Your task to perform on an android device: stop showing notifications on the lock screen Image 0: 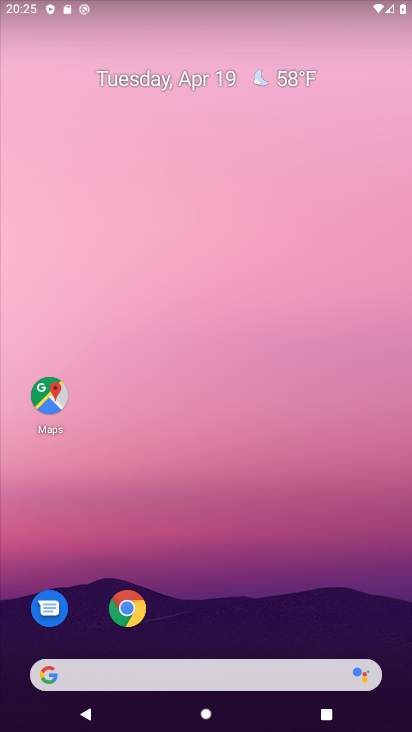
Step 0: drag from (214, 616) to (253, 75)
Your task to perform on an android device: stop showing notifications on the lock screen Image 1: 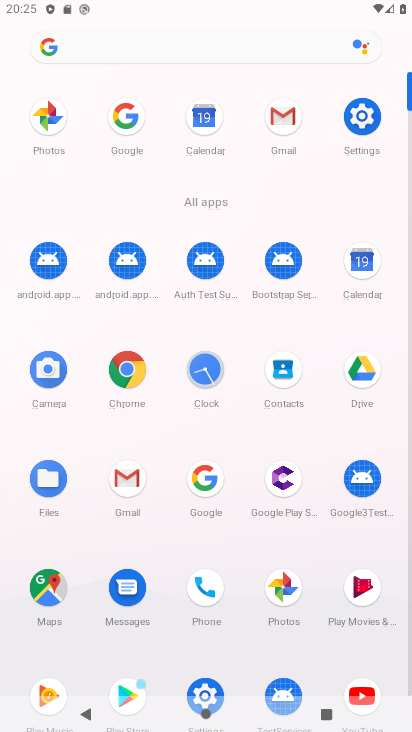
Step 1: click (363, 120)
Your task to perform on an android device: stop showing notifications on the lock screen Image 2: 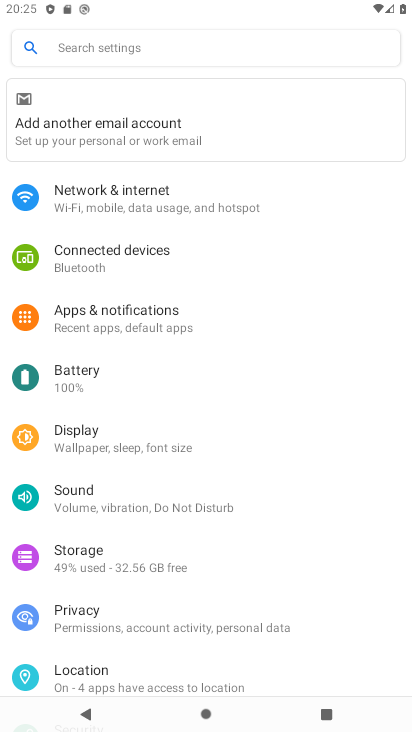
Step 2: click (133, 312)
Your task to perform on an android device: stop showing notifications on the lock screen Image 3: 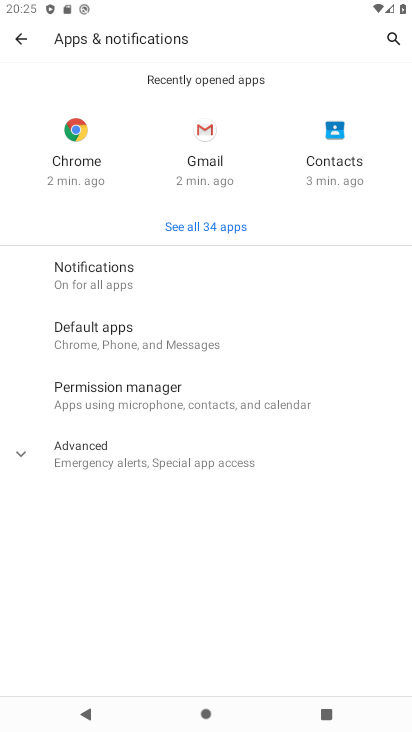
Step 3: click (115, 264)
Your task to perform on an android device: stop showing notifications on the lock screen Image 4: 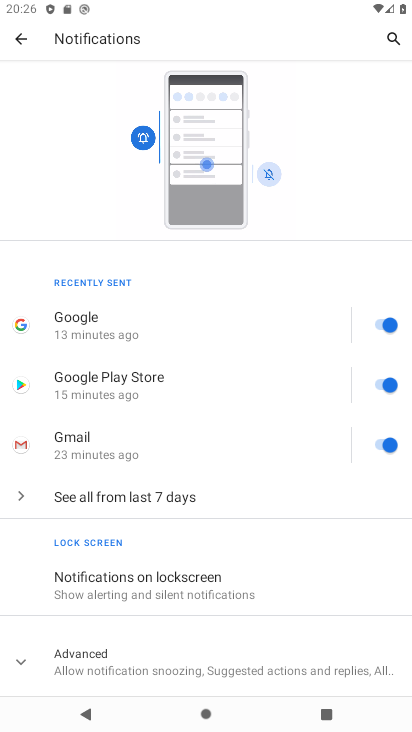
Step 4: click (183, 583)
Your task to perform on an android device: stop showing notifications on the lock screen Image 5: 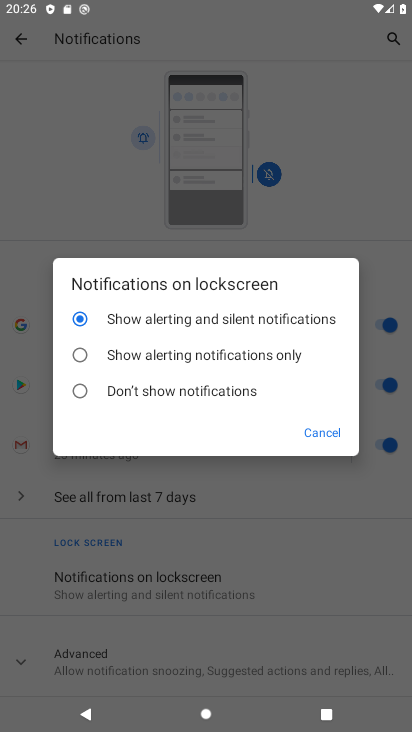
Step 5: click (82, 390)
Your task to perform on an android device: stop showing notifications on the lock screen Image 6: 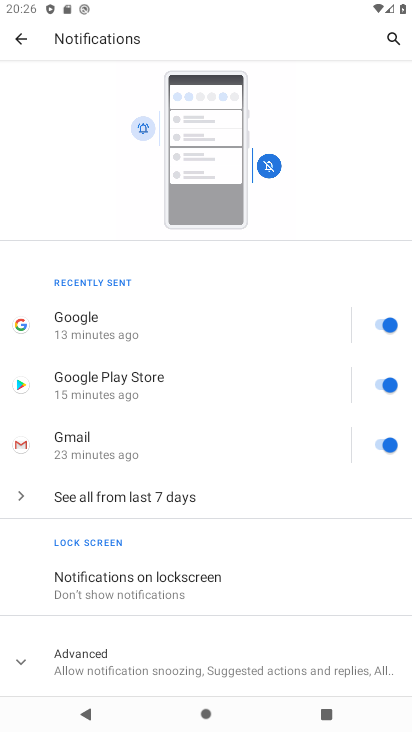
Step 6: task complete